Your task to perform on an android device: read, delete, or share a saved page in the chrome app Image 0: 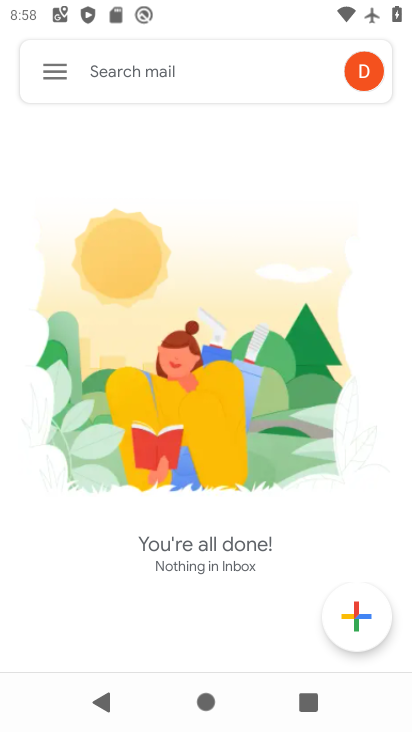
Step 0: press home button
Your task to perform on an android device: read, delete, or share a saved page in the chrome app Image 1: 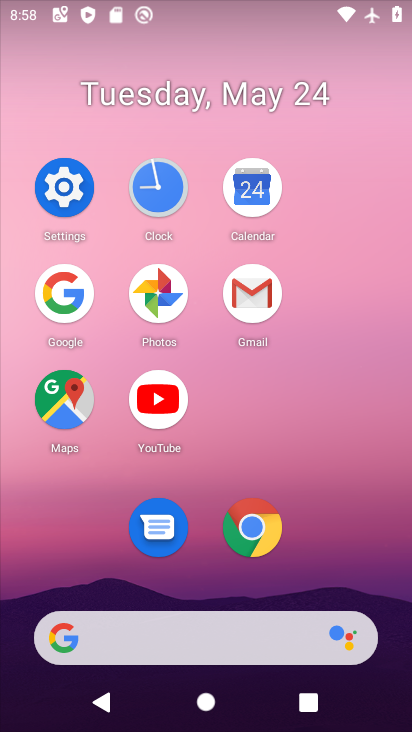
Step 1: click (278, 527)
Your task to perform on an android device: read, delete, or share a saved page in the chrome app Image 2: 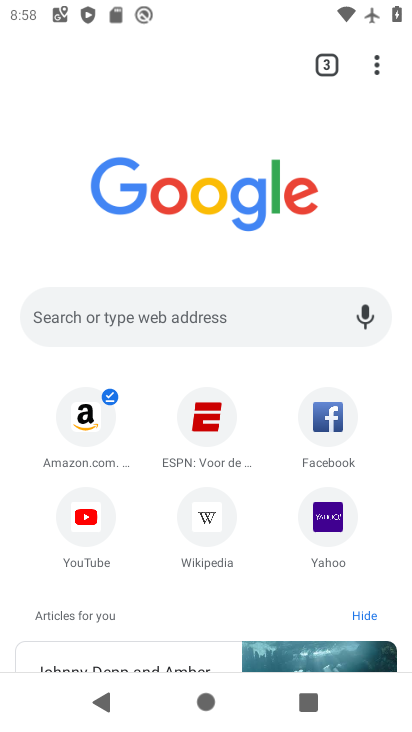
Step 2: click (376, 67)
Your task to perform on an android device: read, delete, or share a saved page in the chrome app Image 3: 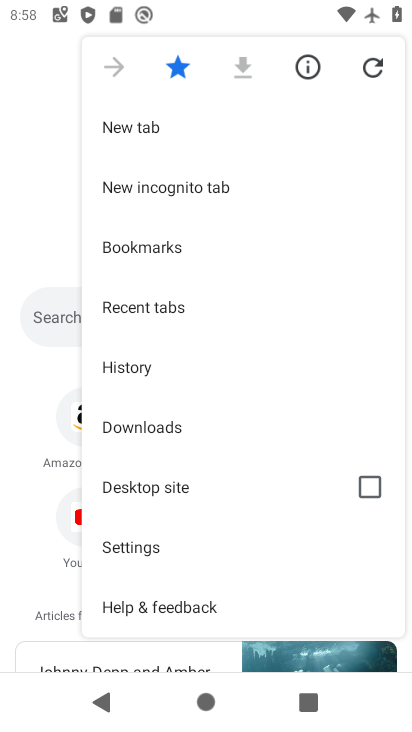
Step 3: click (187, 416)
Your task to perform on an android device: read, delete, or share a saved page in the chrome app Image 4: 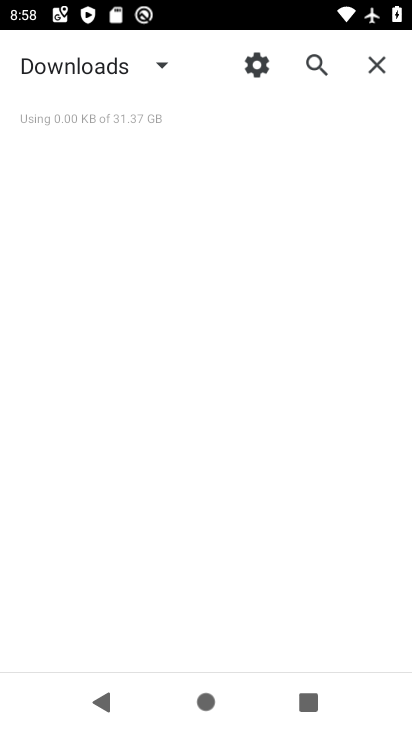
Step 4: task complete